Your task to perform on an android device: check battery use Image 0: 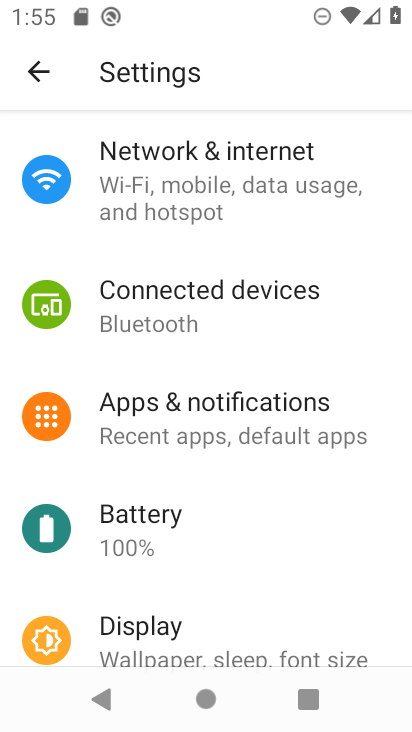
Step 0: click (200, 515)
Your task to perform on an android device: check battery use Image 1: 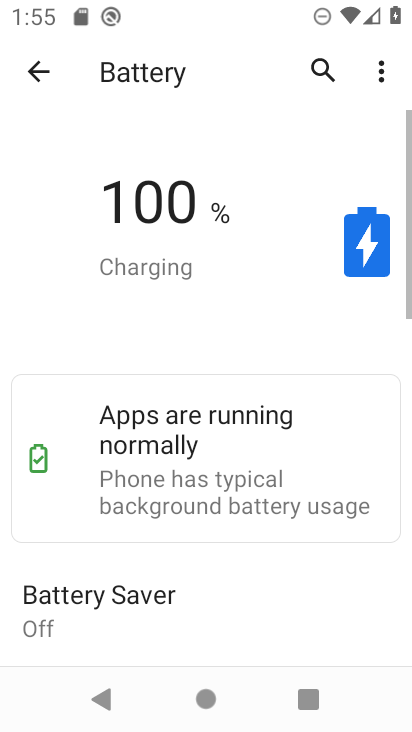
Step 1: task complete